Your task to perform on an android device: Go to Amazon Image 0: 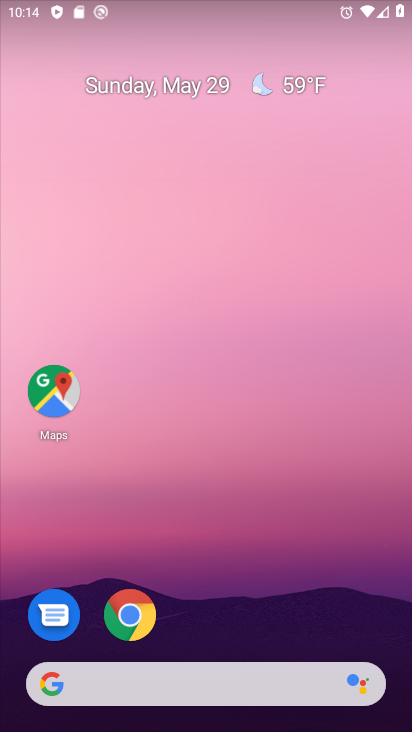
Step 0: drag from (212, 639) to (224, 105)
Your task to perform on an android device: Go to Amazon Image 1: 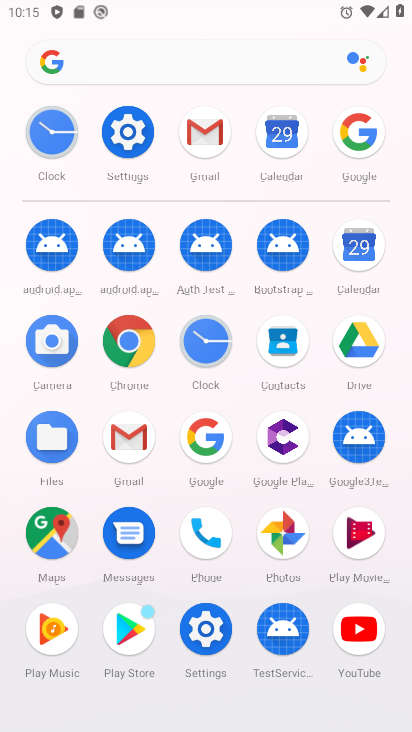
Step 1: click (130, 346)
Your task to perform on an android device: Go to Amazon Image 2: 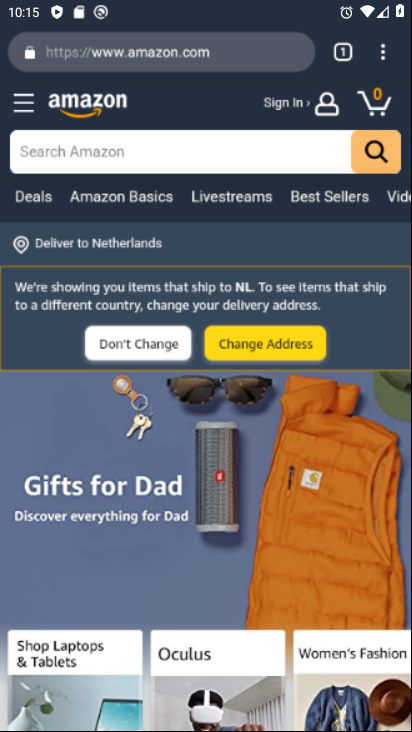
Step 2: task complete